Your task to perform on an android device: turn on location history Image 0: 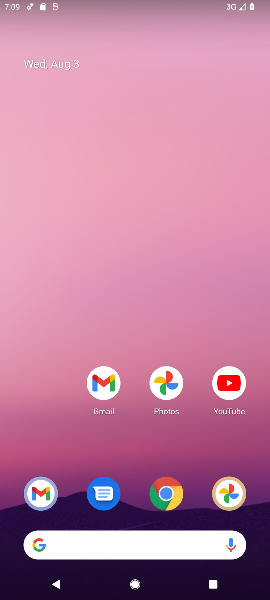
Step 0: drag from (137, 511) to (161, 140)
Your task to perform on an android device: turn on location history Image 1: 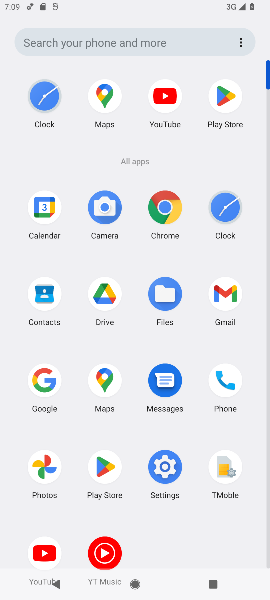
Step 1: click (175, 464)
Your task to perform on an android device: turn on location history Image 2: 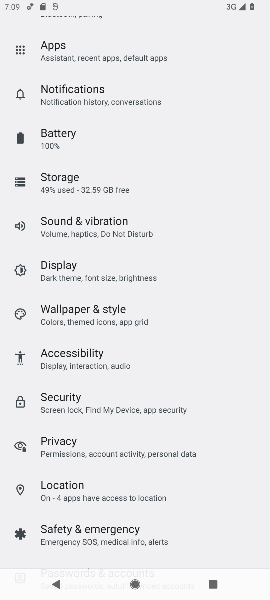
Step 2: click (78, 493)
Your task to perform on an android device: turn on location history Image 3: 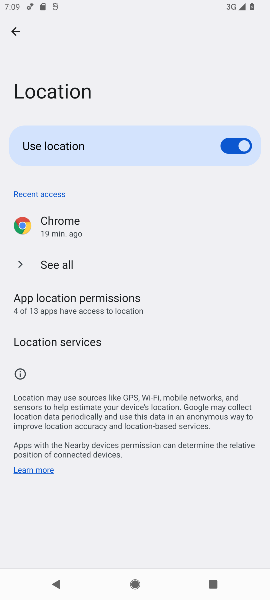
Step 3: click (17, 376)
Your task to perform on an android device: turn on location history Image 4: 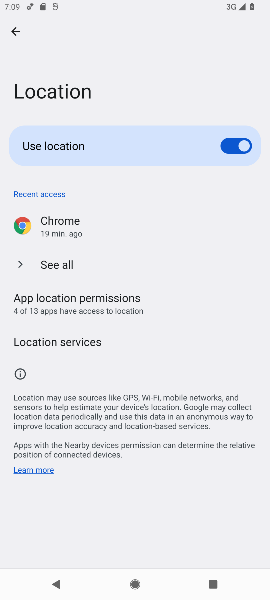
Step 4: click (55, 337)
Your task to perform on an android device: turn on location history Image 5: 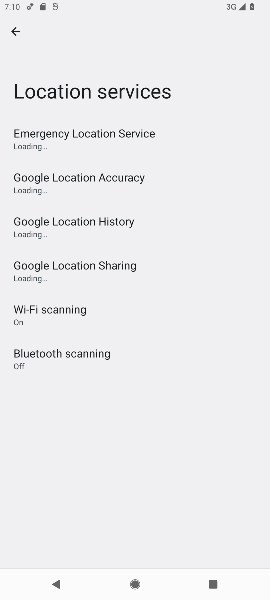
Step 5: click (57, 221)
Your task to perform on an android device: turn on location history Image 6: 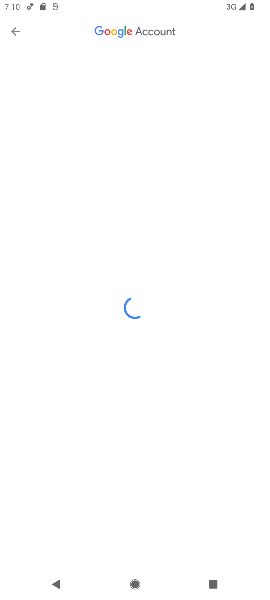
Step 6: task complete